Your task to perform on an android device: Go to internet settings Image 0: 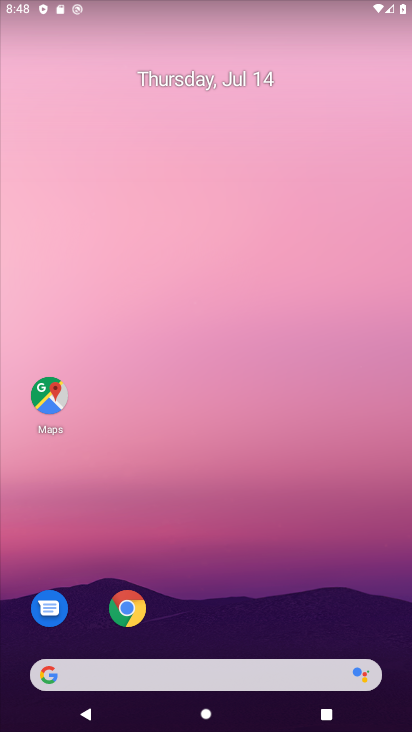
Step 0: drag from (200, 669) to (264, 18)
Your task to perform on an android device: Go to internet settings Image 1: 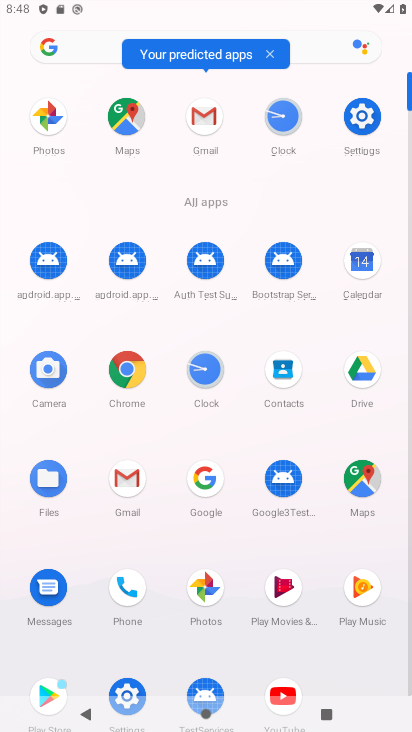
Step 1: click (354, 124)
Your task to perform on an android device: Go to internet settings Image 2: 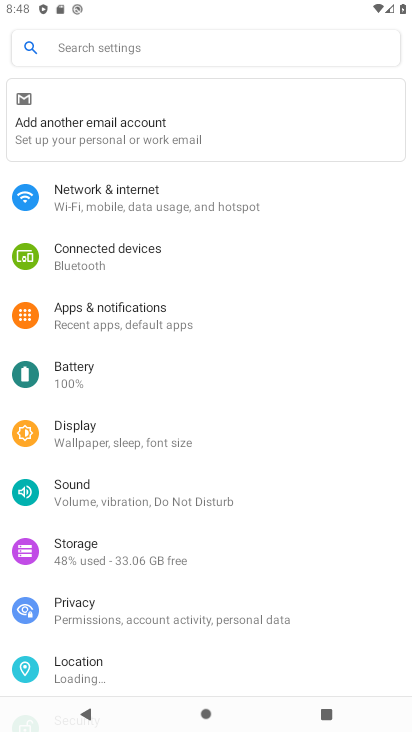
Step 2: click (110, 195)
Your task to perform on an android device: Go to internet settings Image 3: 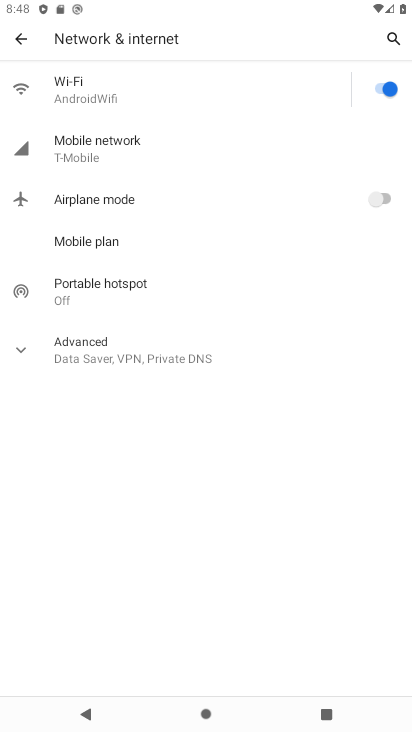
Step 3: task complete